Your task to perform on an android device: toggle translation in the chrome app Image 0: 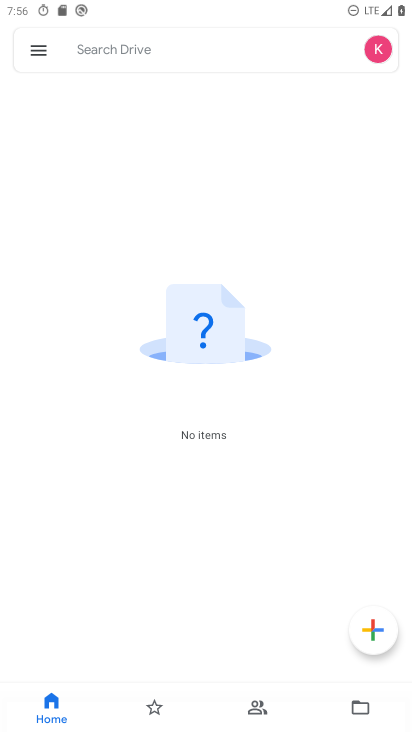
Step 0: press home button
Your task to perform on an android device: toggle translation in the chrome app Image 1: 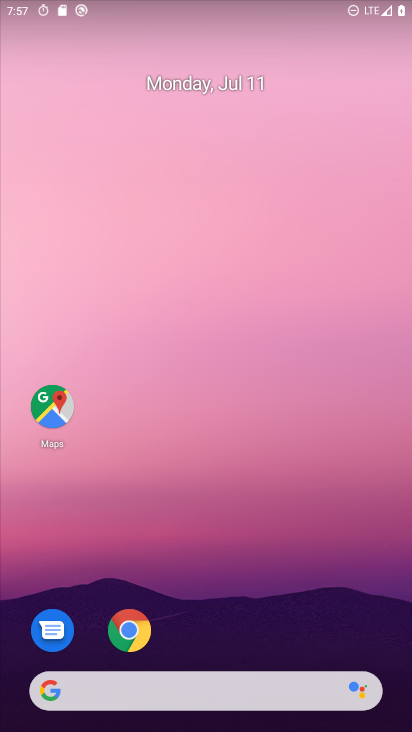
Step 1: click (125, 636)
Your task to perform on an android device: toggle translation in the chrome app Image 2: 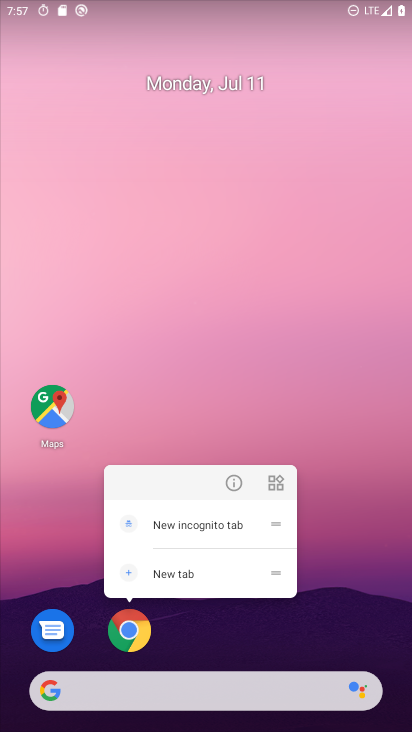
Step 2: click (130, 632)
Your task to perform on an android device: toggle translation in the chrome app Image 3: 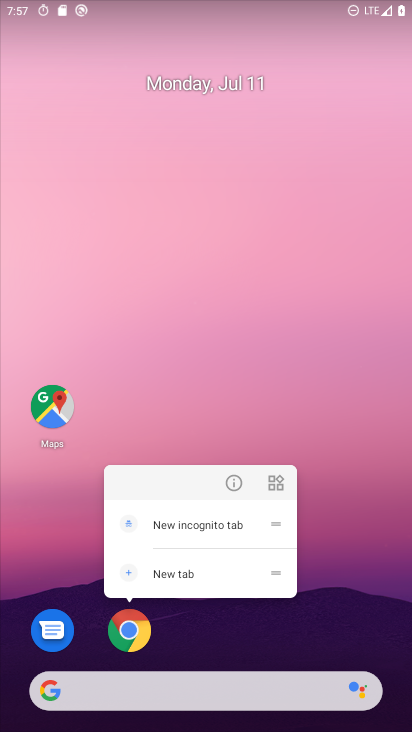
Step 3: click (122, 641)
Your task to perform on an android device: toggle translation in the chrome app Image 4: 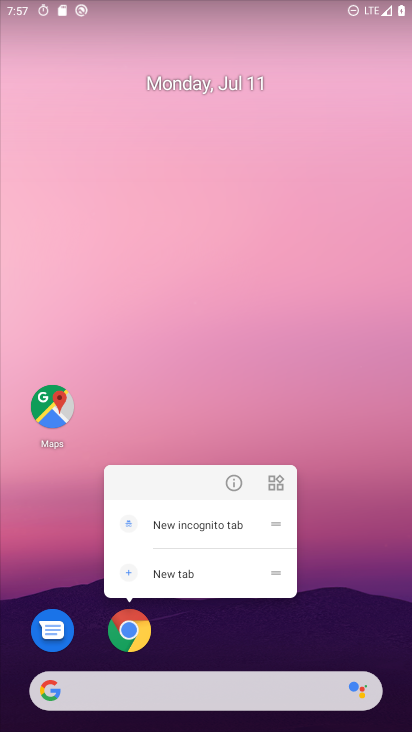
Step 4: click (132, 629)
Your task to perform on an android device: toggle translation in the chrome app Image 5: 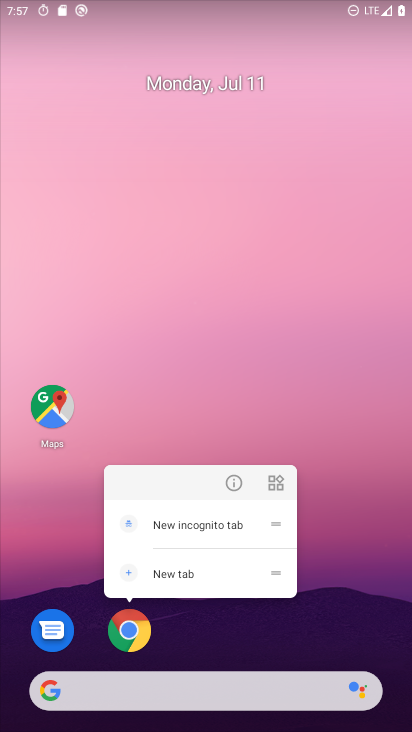
Step 5: click (132, 630)
Your task to perform on an android device: toggle translation in the chrome app Image 6: 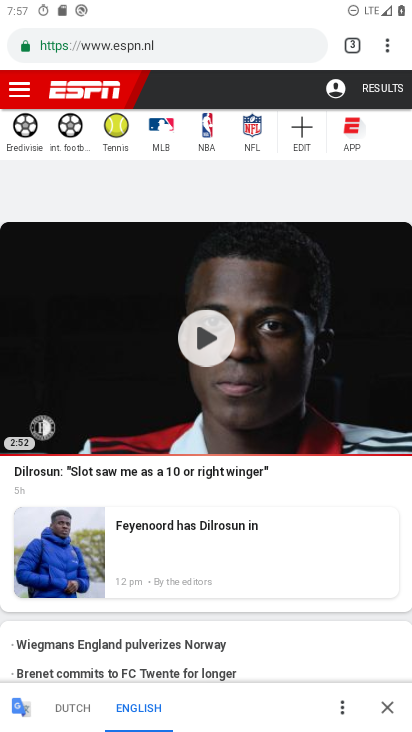
Step 6: drag from (388, 36) to (267, 544)
Your task to perform on an android device: toggle translation in the chrome app Image 7: 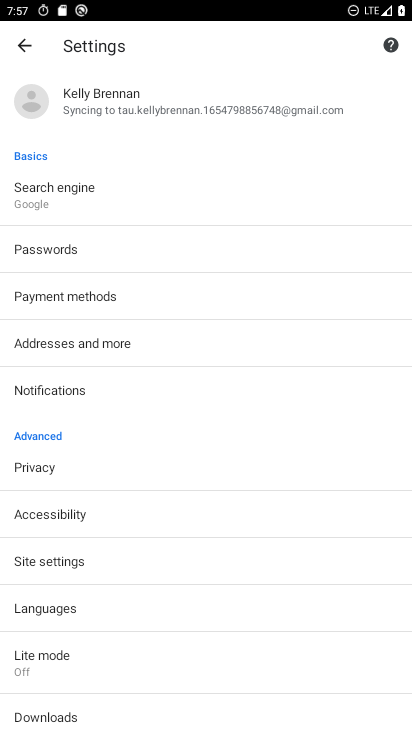
Step 7: click (86, 605)
Your task to perform on an android device: toggle translation in the chrome app Image 8: 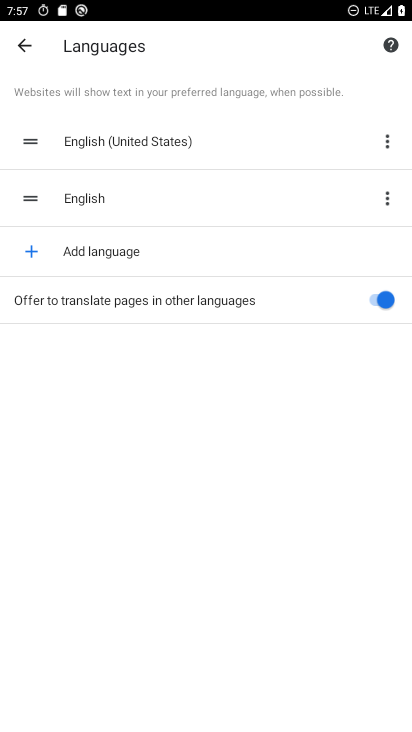
Step 8: click (372, 296)
Your task to perform on an android device: toggle translation in the chrome app Image 9: 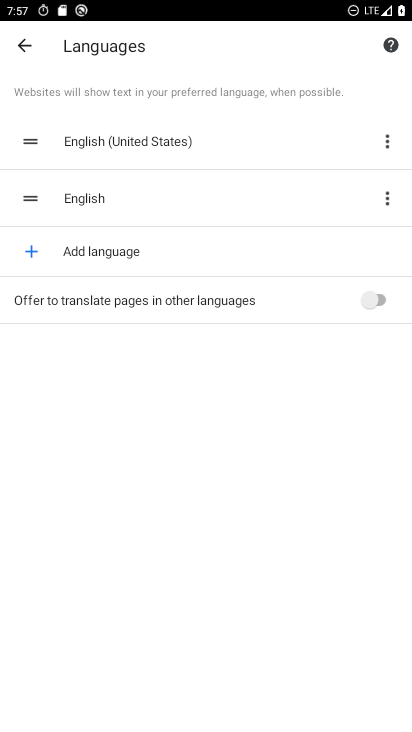
Step 9: task complete